Your task to perform on an android device: Show me popular videos on Youtube Image 0: 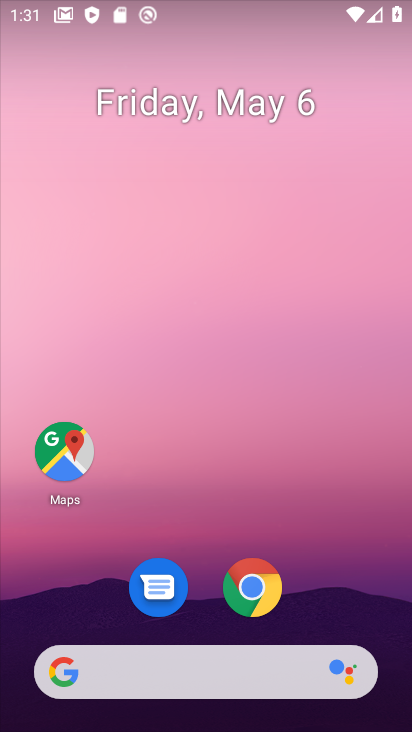
Step 0: drag from (353, 463) to (366, 114)
Your task to perform on an android device: Show me popular videos on Youtube Image 1: 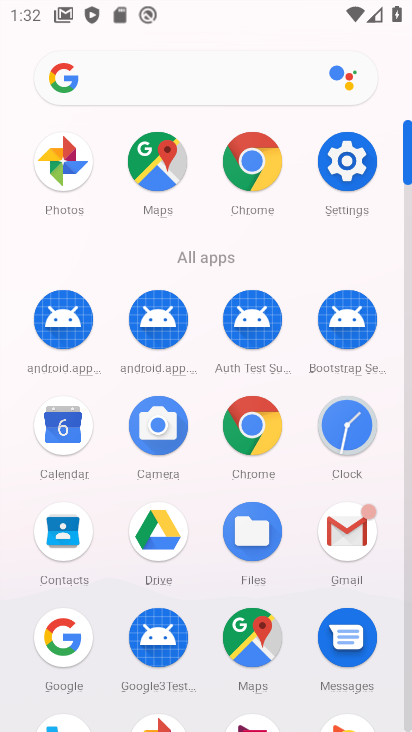
Step 1: drag from (366, 540) to (345, 118)
Your task to perform on an android device: Show me popular videos on Youtube Image 2: 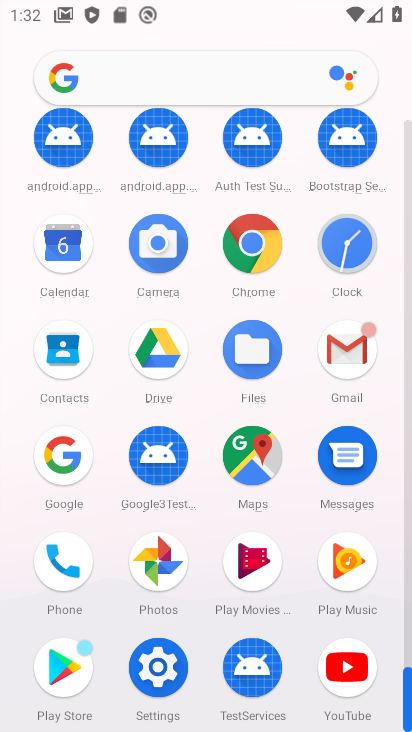
Step 2: click (348, 678)
Your task to perform on an android device: Show me popular videos on Youtube Image 3: 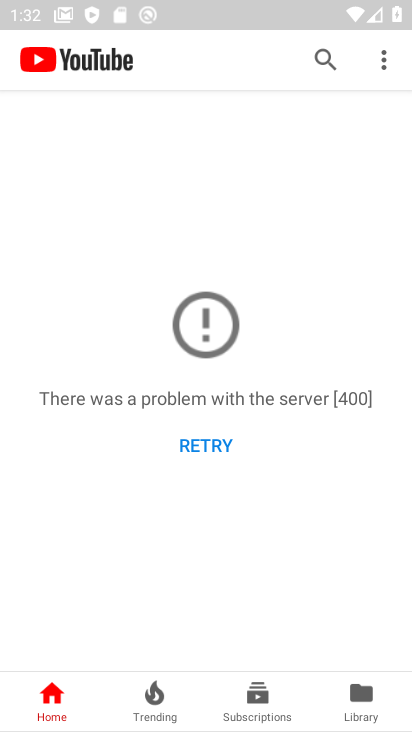
Step 3: click (320, 48)
Your task to perform on an android device: Show me popular videos on Youtube Image 4: 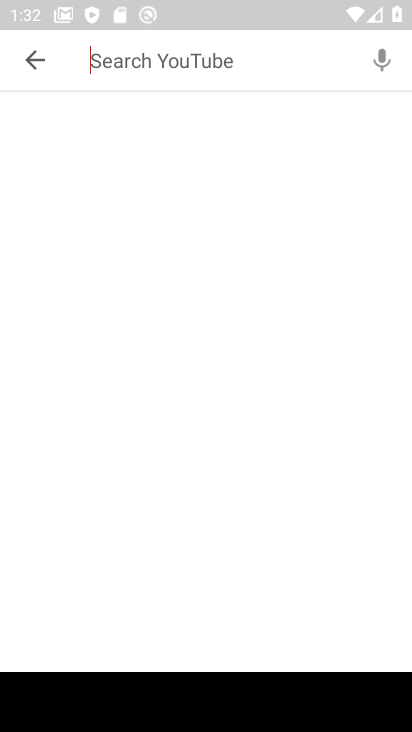
Step 4: type "popular videos"
Your task to perform on an android device: Show me popular videos on Youtube Image 5: 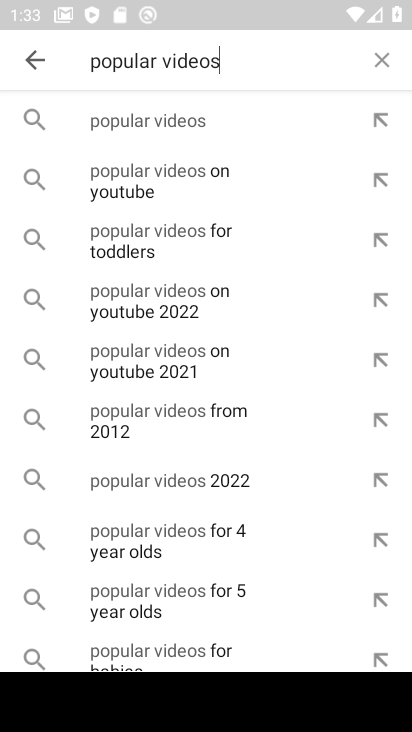
Step 5: click (125, 110)
Your task to perform on an android device: Show me popular videos on Youtube Image 6: 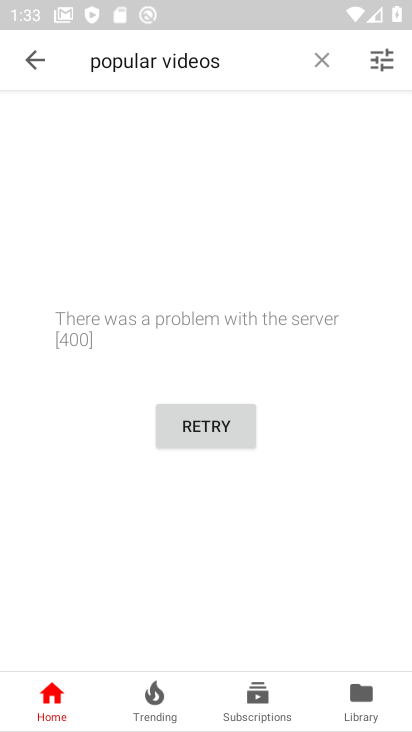
Step 6: click (198, 421)
Your task to perform on an android device: Show me popular videos on Youtube Image 7: 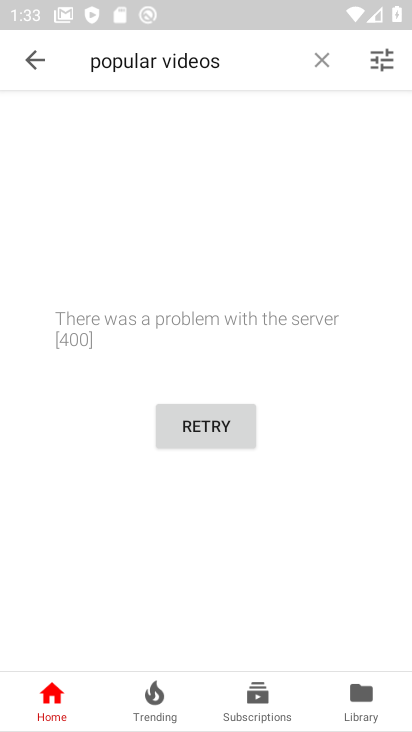
Step 7: click (232, 427)
Your task to perform on an android device: Show me popular videos on Youtube Image 8: 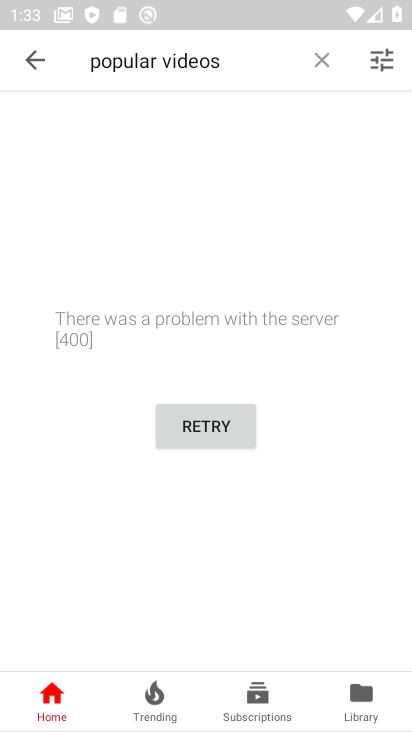
Step 8: click (265, 380)
Your task to perform on an android device: Show me popular videos on Youtube Image 9: 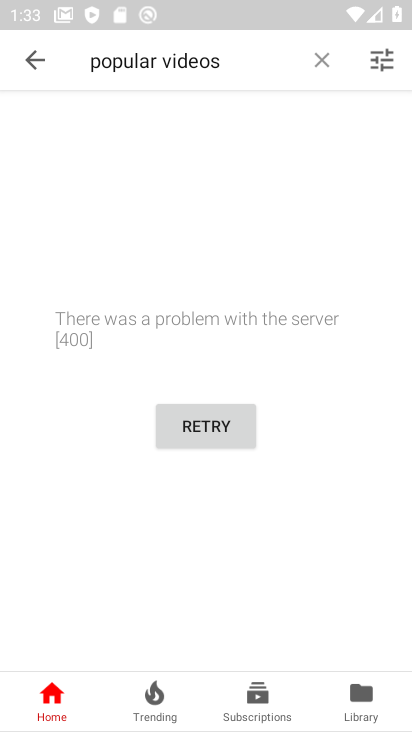
Step 9: click (191, 440)
Your task to perform on an android device: Show me popular videos on Youtube Image 10: 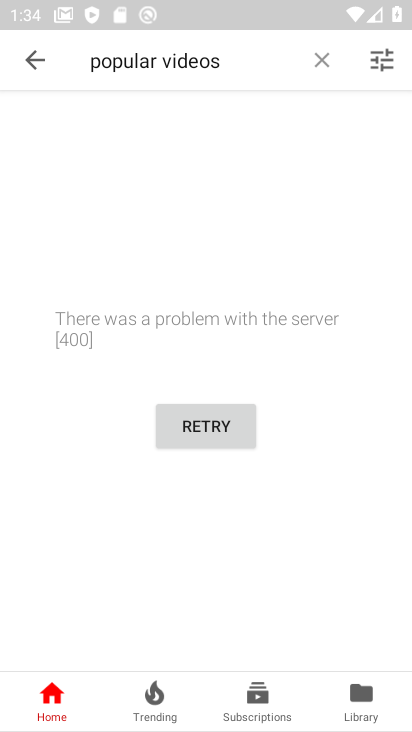
Step 10: task complete